Your task to perform on an android device: Clear the shopping cart on target. Add acer predator to the cart on target Image 0: 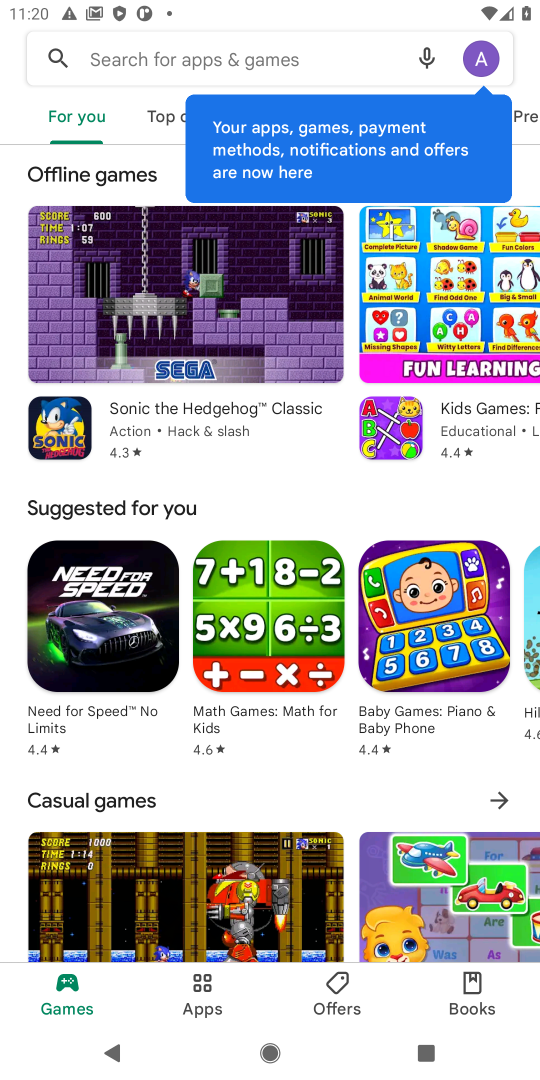
Step 0: press home button
Your task to perform on an android device: Clear the shopping cart on target. Add acer predator to the cart on target Image 1: 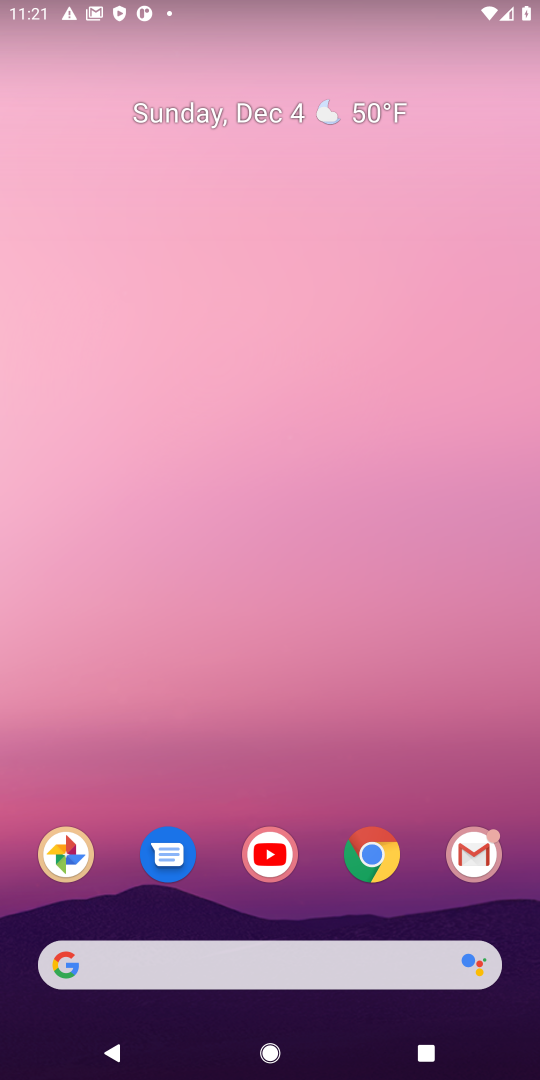
Step 1: click (293, 968)
Your task to perform on an android device: Clear the shopping cart on target. Add acer predator to the cart on target Image 2: 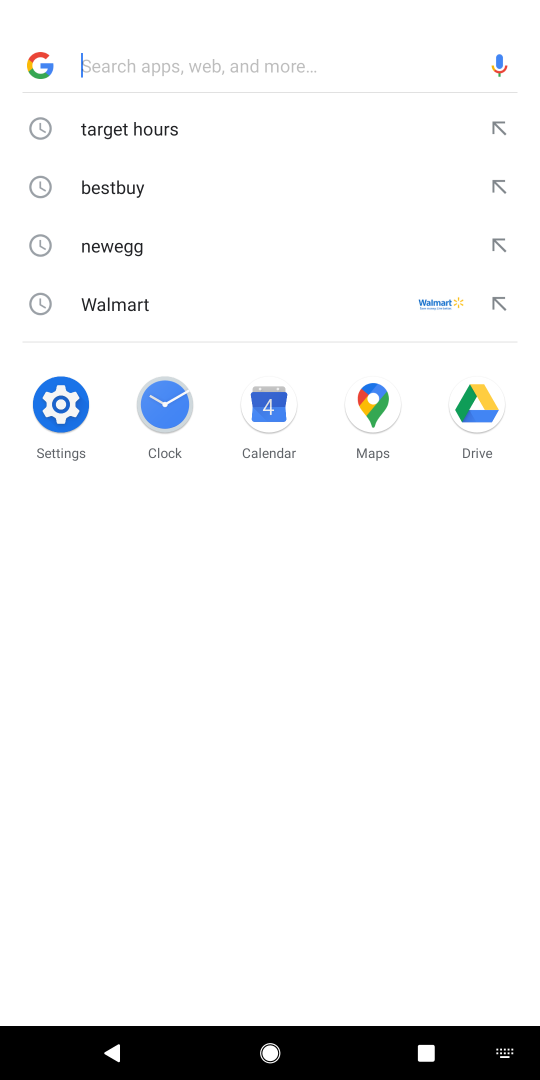
Step 2: type "target"
Your task to perform on an android device: Clear the shopping cart on target. Add acer predator to the cart on target Image 3: 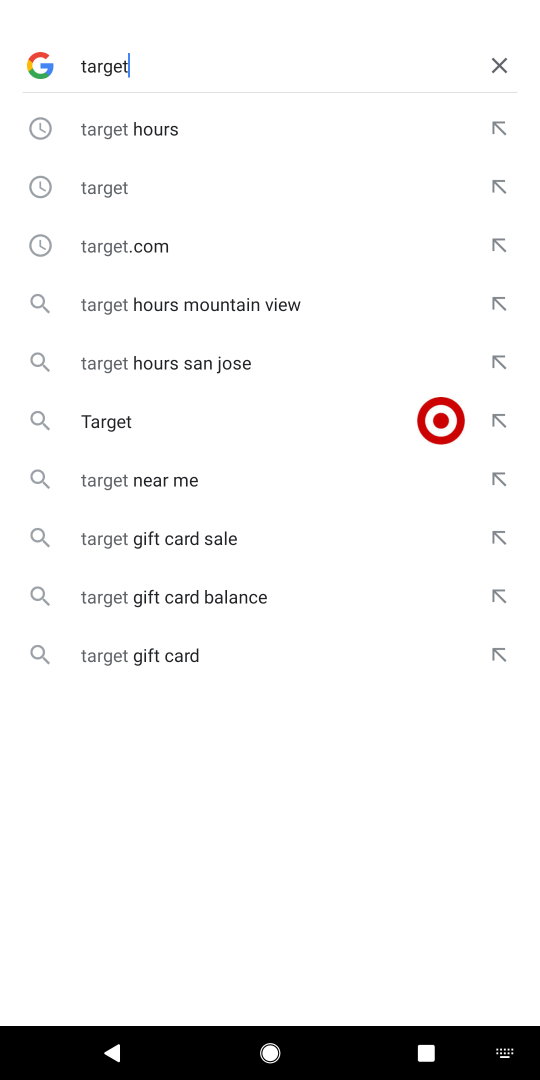
Step 3: click (132, 419)
Your task to perform on an android device: Clear the shopping cart on target. Add acer predator to the cart on target Image 4: 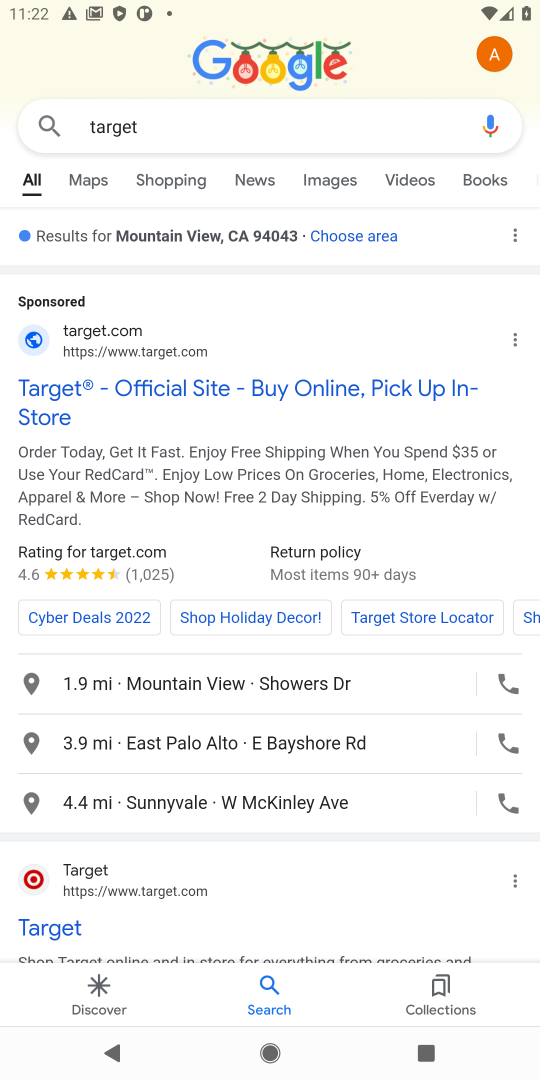
Step 4: click (107, 412)
Your task to perform on an android device: Clear the shopping cart on target. Add acer predator to the cart on target Image 5: 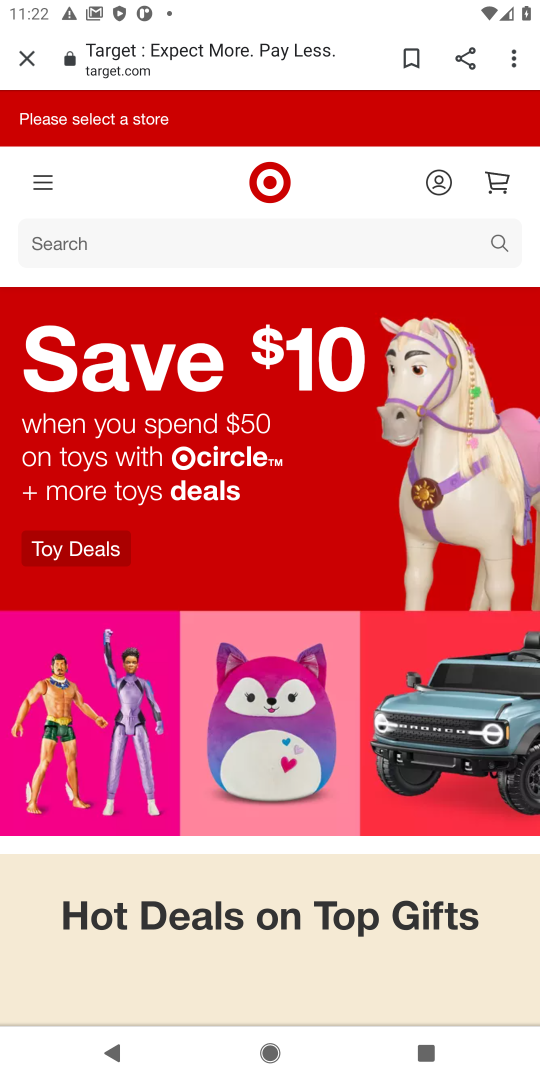
Step 5: click (162, 250)
Your task to perform on an android device: Clear the shopping cart on target. Add acer predator to the cart on target Image 6: 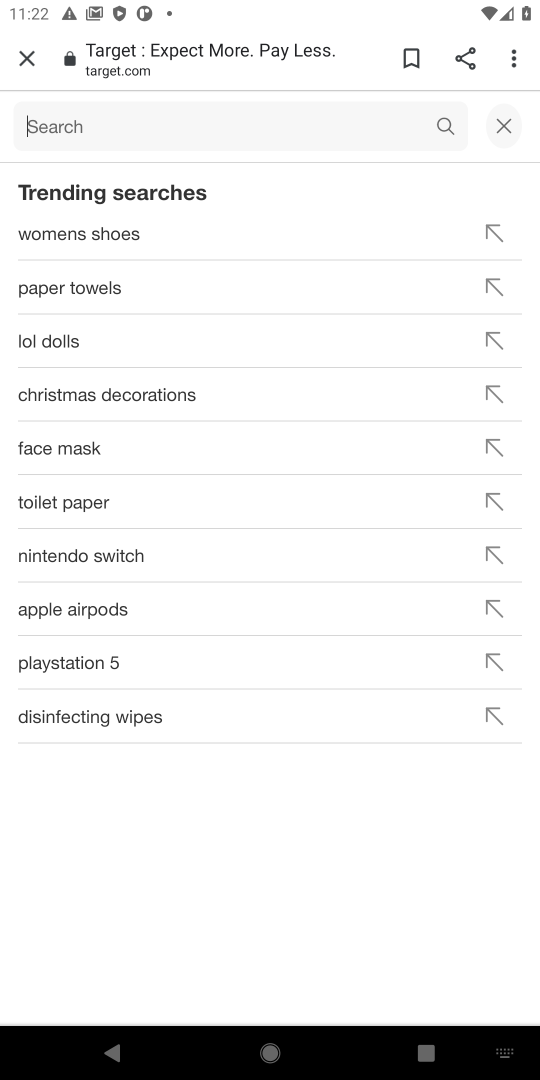
Step 6: type "acer predator"
Your task to perform on an android device: Clear the shopping cart on target. Add acer predator to the cart on target Image 7: 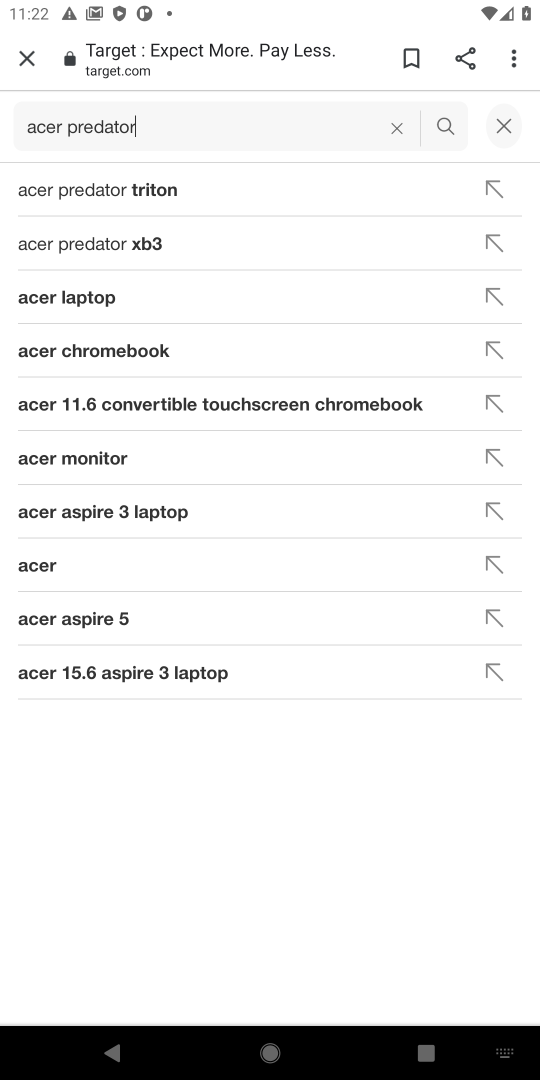
Step 7: click (252, 177)
Your task to perform on an android device: Clear the shopping cart on target. Add acer predator to the cart on target Image 8: 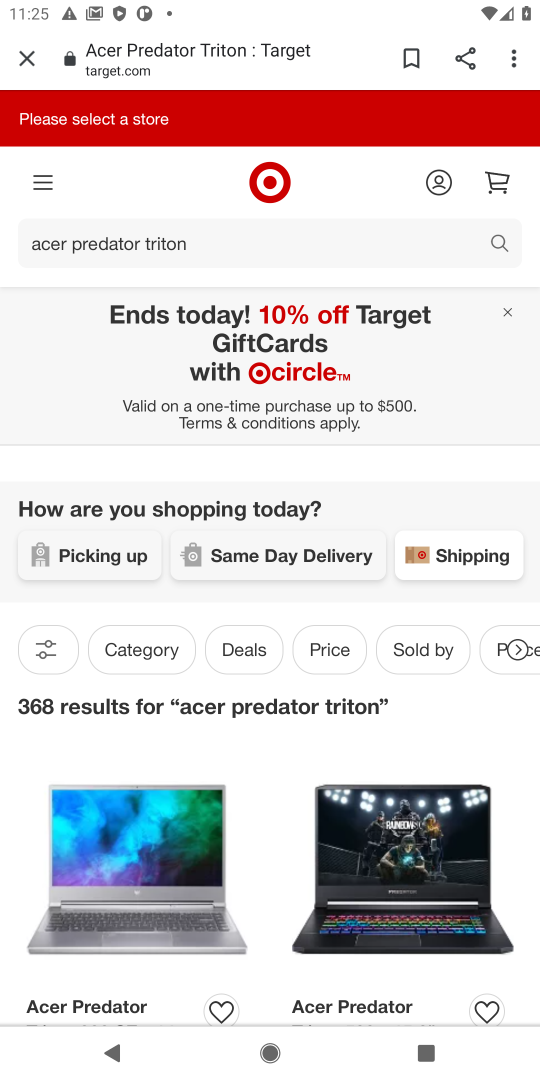
Step 8: task complete